Your task to perform on an android device: open app "Skype" Image 0: 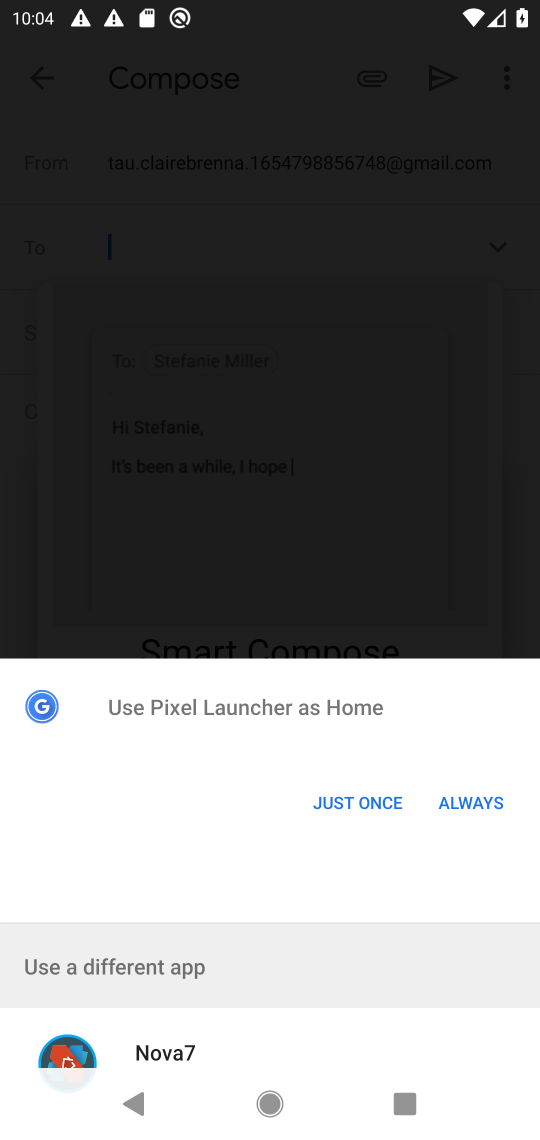
Step 0: click (355, 779)
Your task to perform on an android device: open app "Skype" Image 1: 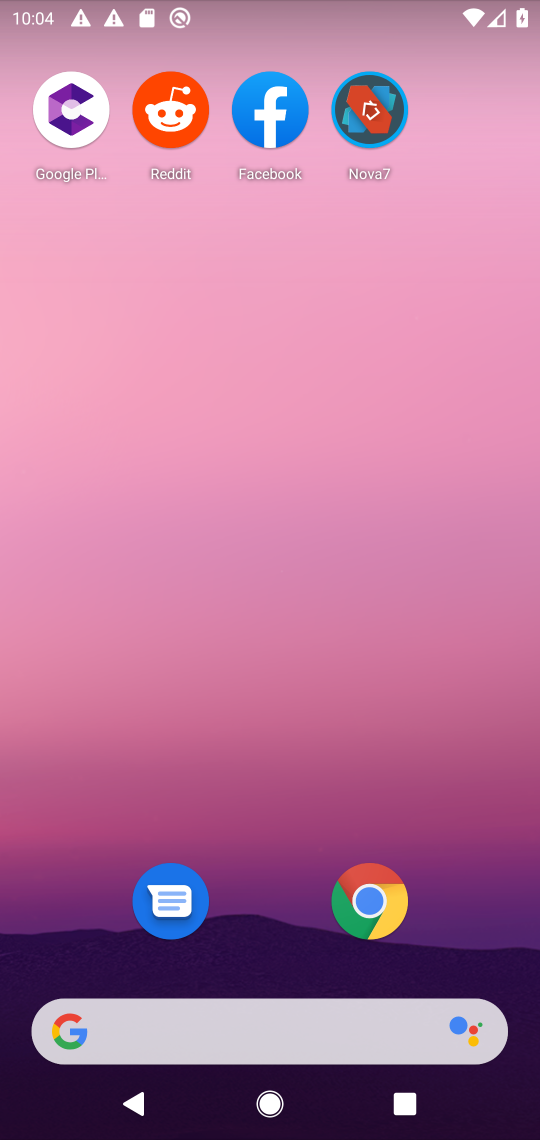
Step 1: drag from (248, 755) to (271, 157)
Your task to perform on an android device: open app "Skype" Image 2: 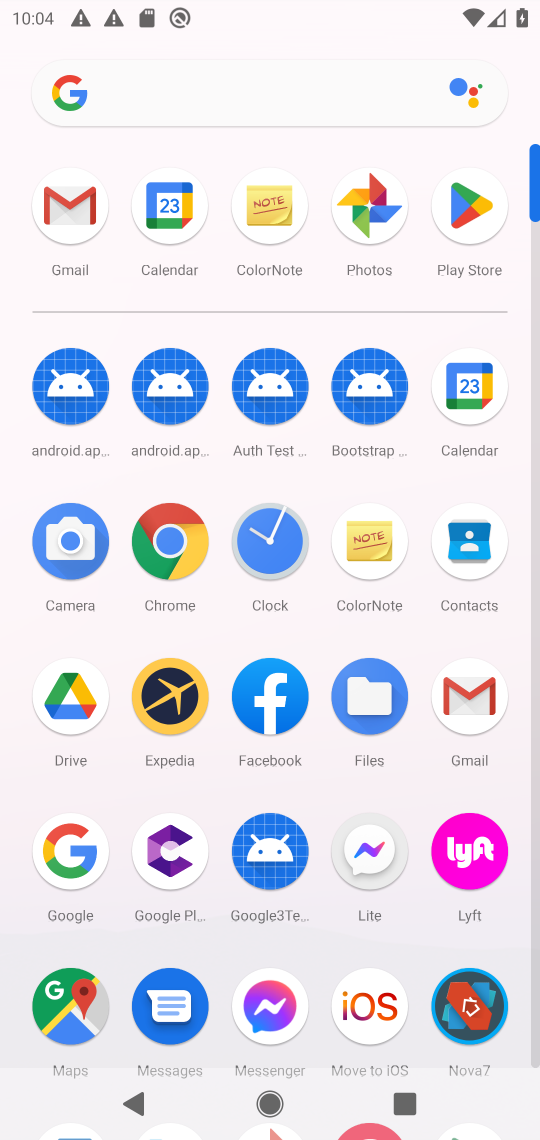
Step 2: click (465, 216)
Your task to perform on an android device: open app "Skype" Image 3: 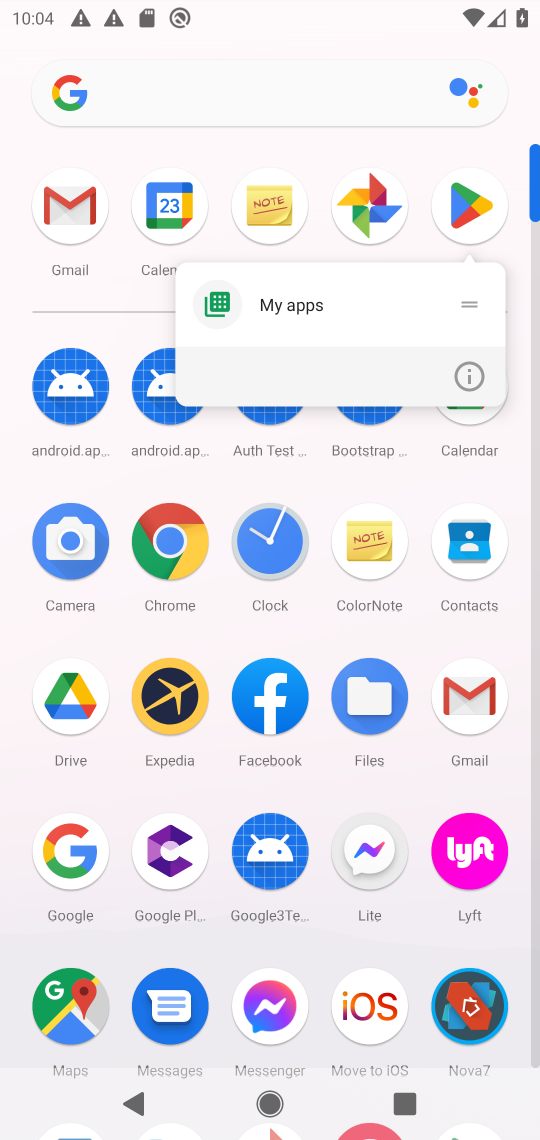
Step 3: click (465, 219)
Your task to perform on an android device: open app "Skype" Image 4: 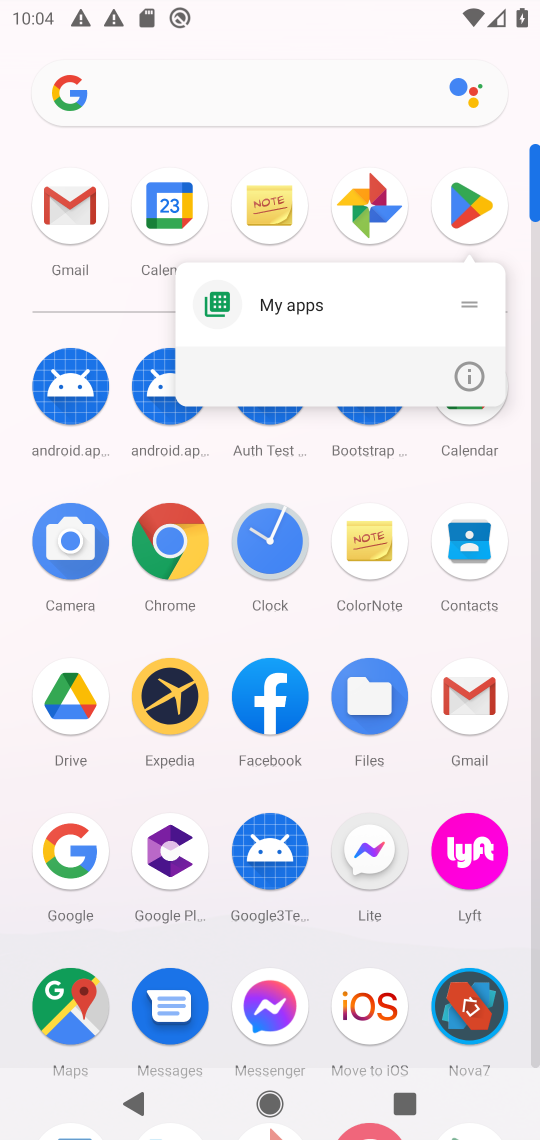
Step 4: click (465, 220)
Your task to perform on an android device: open app "Skype" Image 5: 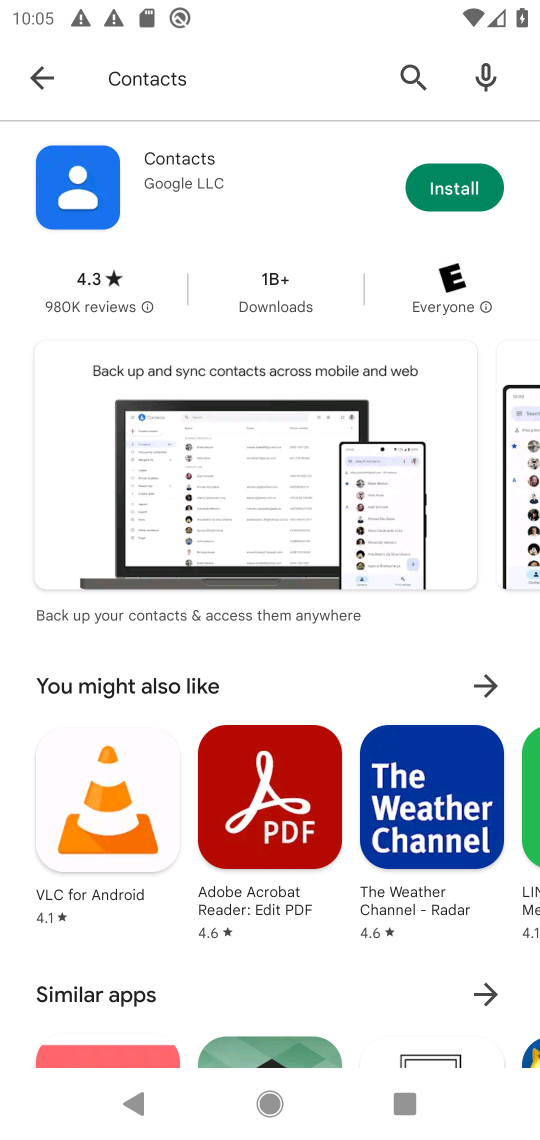
Step 5: press back button
Your task to perform on an android device: open app "Skype" Image 6: 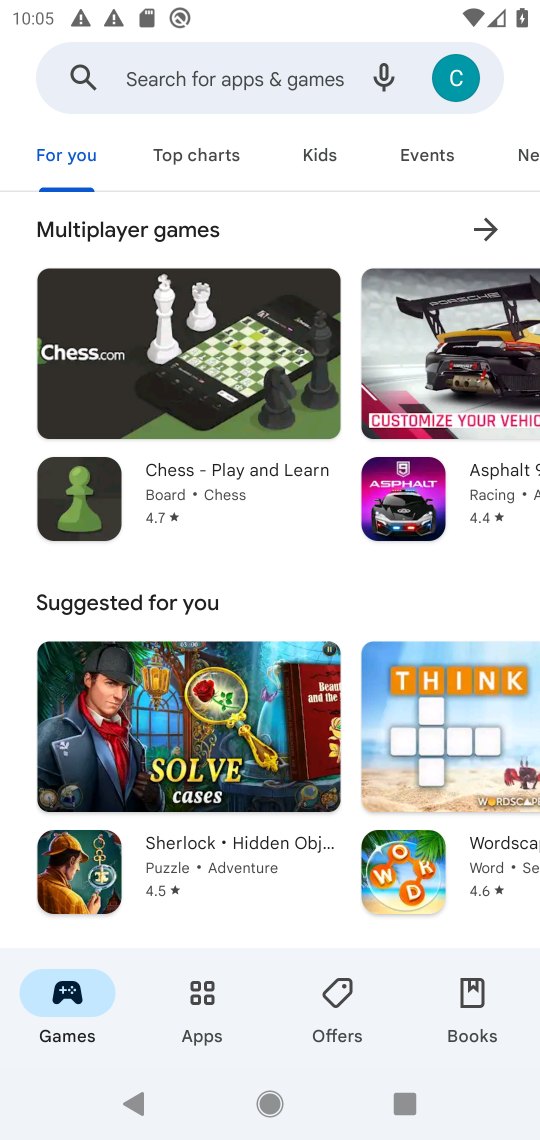
Step 6: click (260, 91)
Your task to perform on an android device: open app "Skype" Image 7: 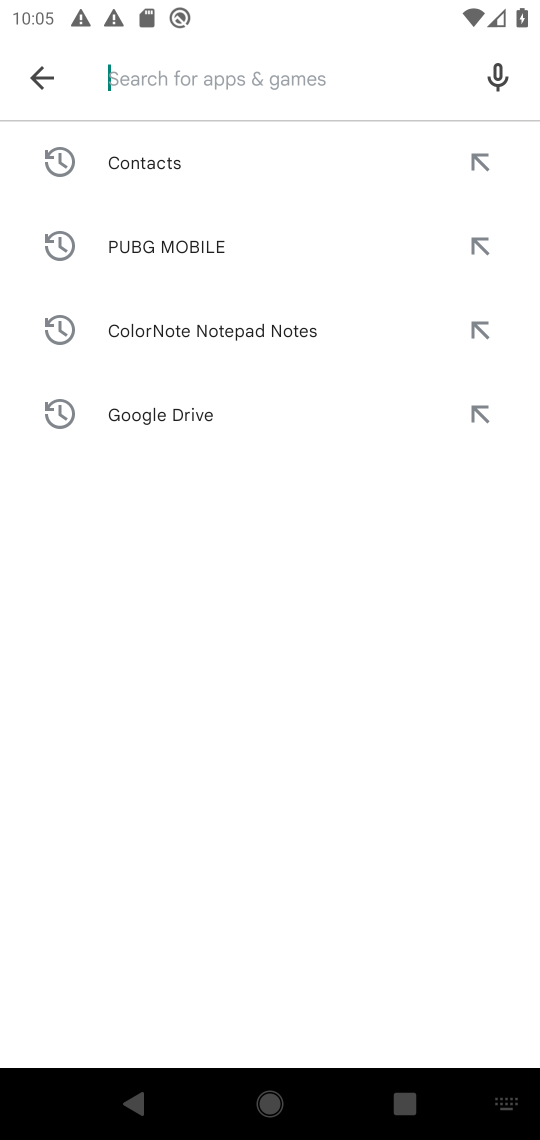
Step 7: type "Skype"
Your task to perform on an android device: open app "Skype" Image 8: 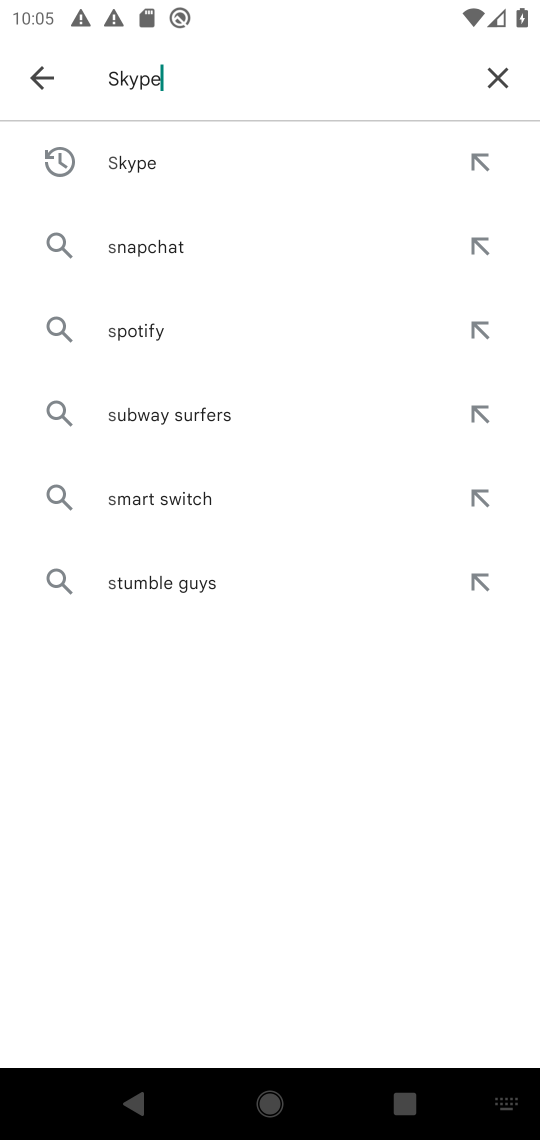
Step 8: press enter
Your task to perform on an android device: open app "Skype" Image 9: 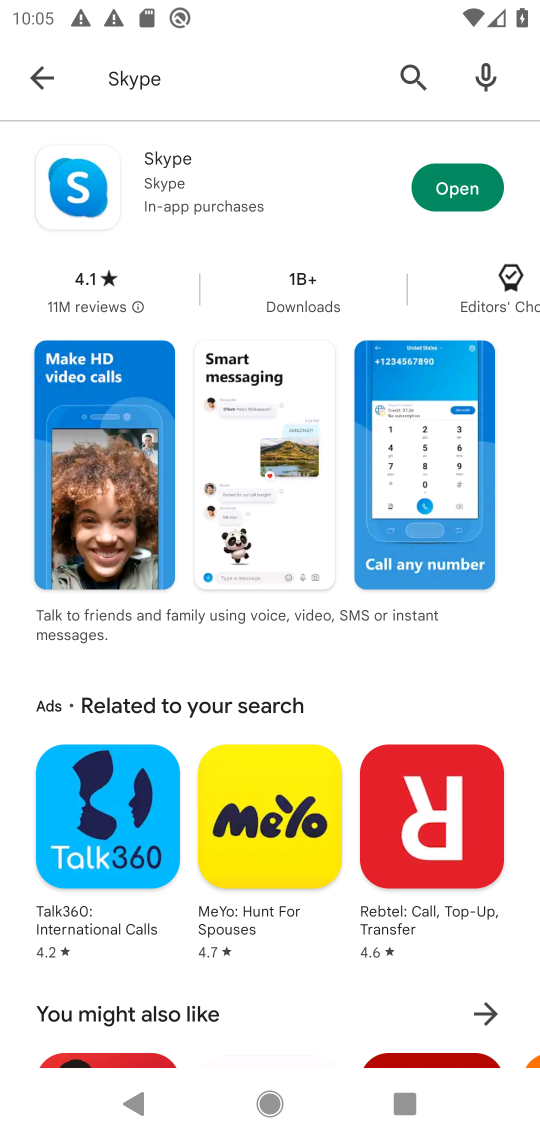
Step 9: click (451, 181)
Your task to perform on an android device: open app "Skype" Image 10: 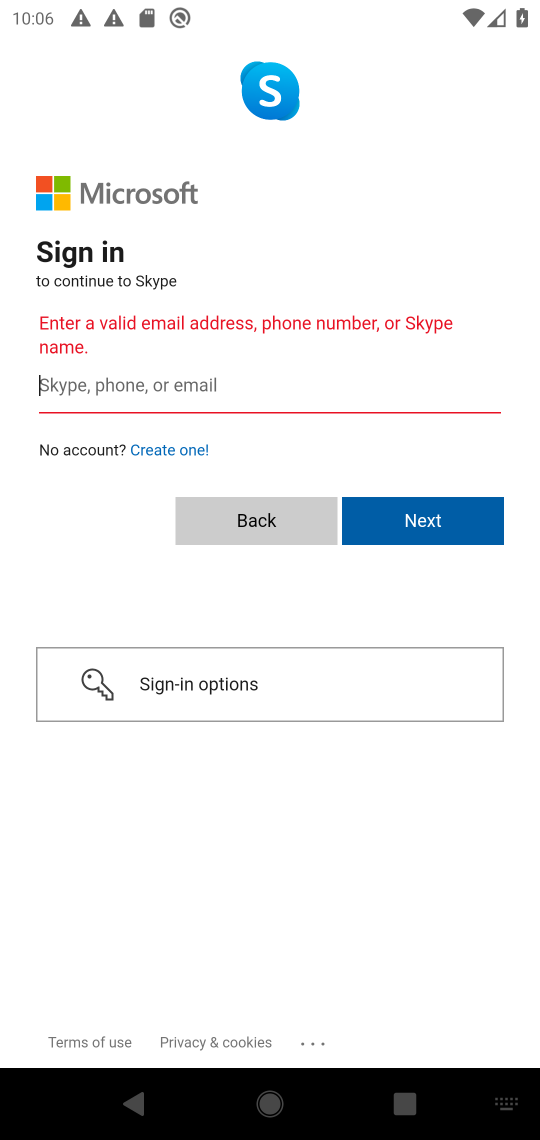
Step 10: task complete